Your task to perform on an android device: toggle sleep mode Image 0: 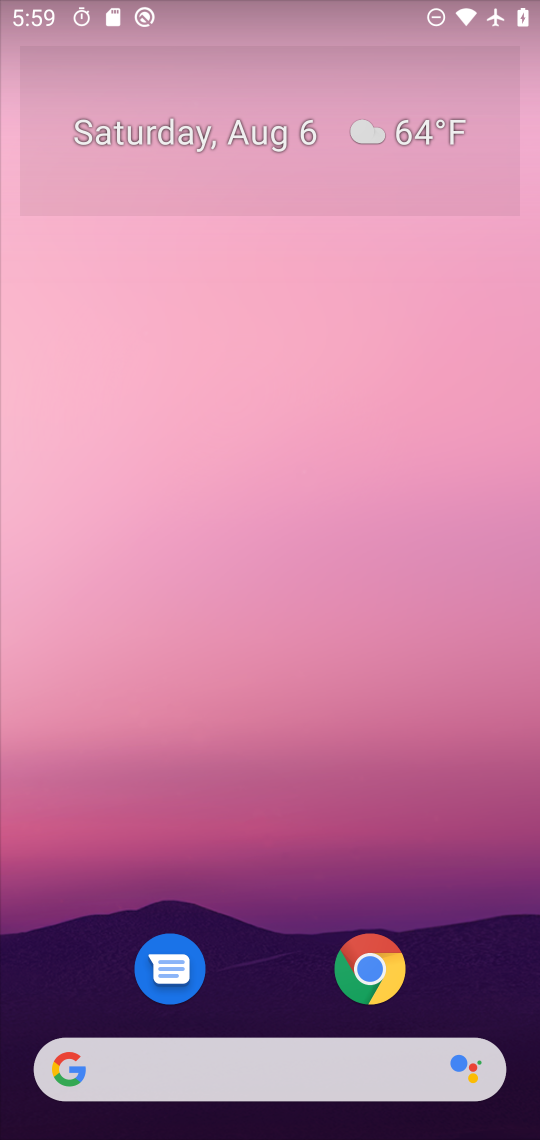
Step 0: press back button
Your task to perform on an android device: toggle sleep mode Image 1: 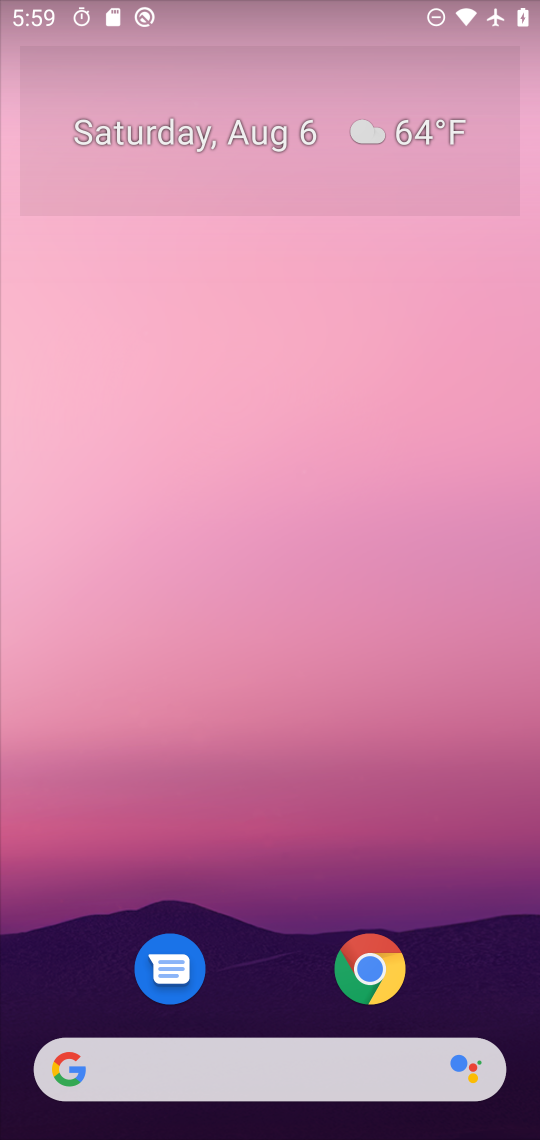
Step 1: press home button
Your task to perform on an android device: toggle sleep mode Image 2: 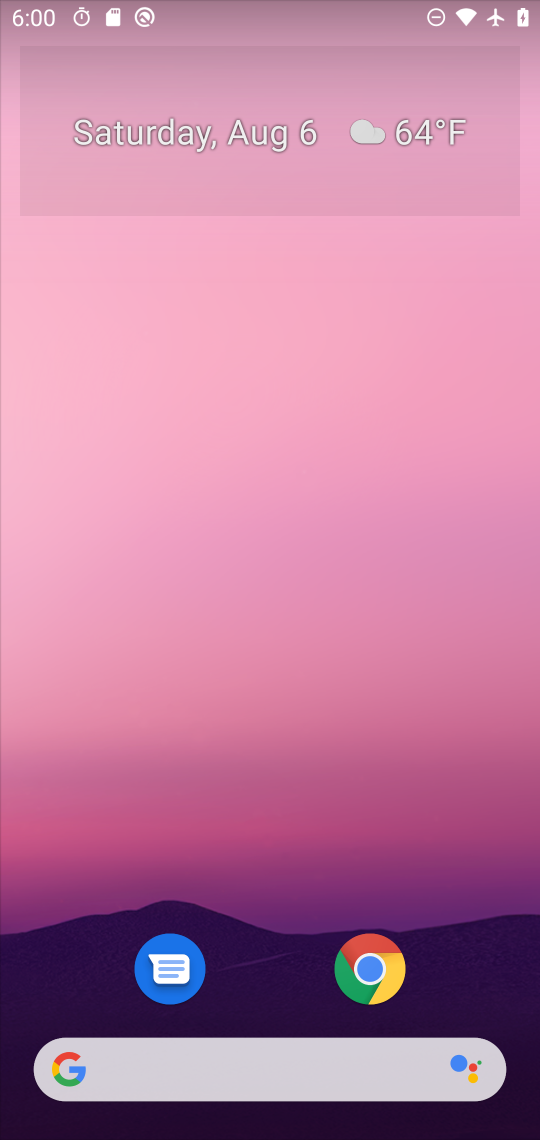
Step 2: drag from (117, 503) to (59, 242)
Your task to perform on an android device: toggle sleep mode Image 3: 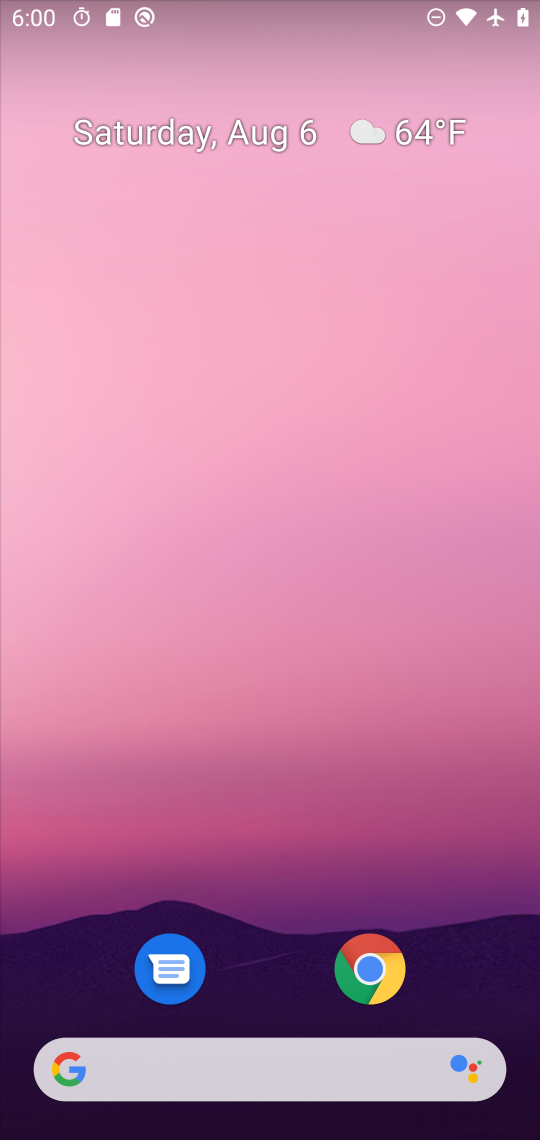
Step 3: drag from (284, 968) to (235, 117)
Your task to perform on an android device: toggle sleep mode Image 4: 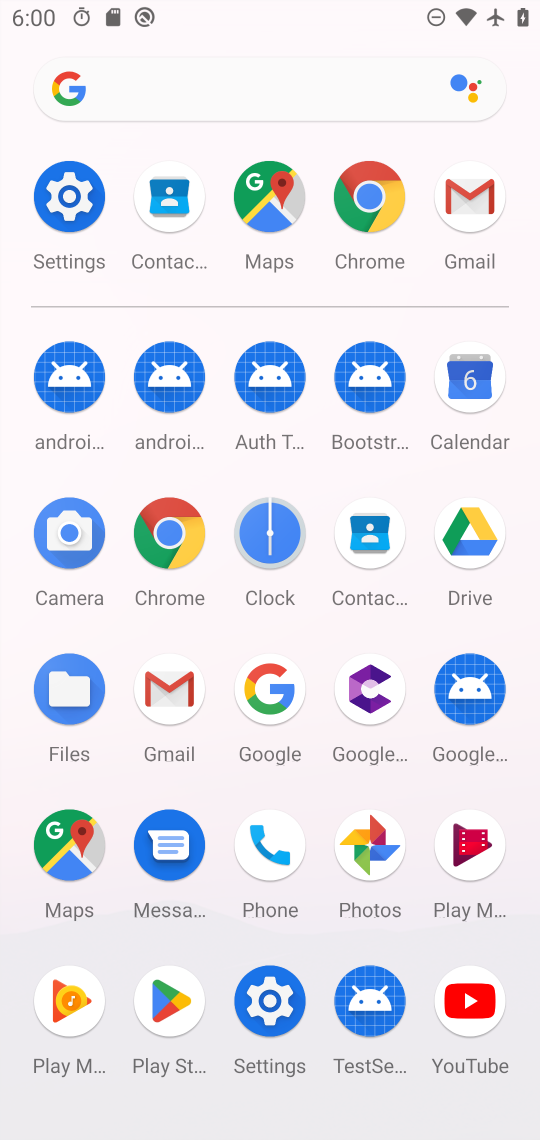
Step 4: click (83, 208)
Your task to perform on an android device: toggle sleep mode Image 5: 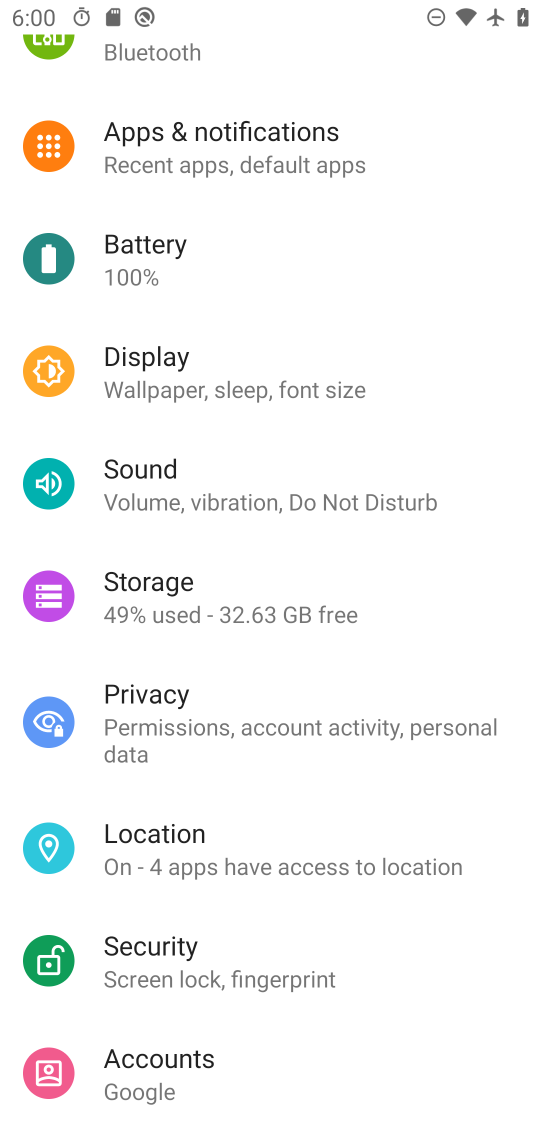
Step 5: click (173, 368)
Your task to perform on an android device: toggle sleep mode Image 6: 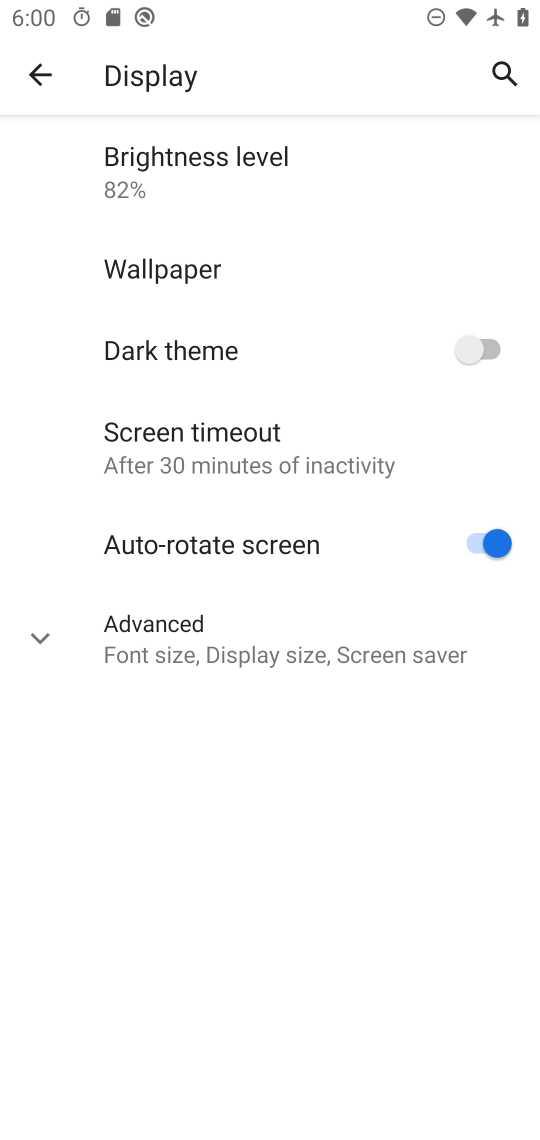
Step 6: task complete